Your task to perform on an android device: Show me the alarms in the clock app Image 0: 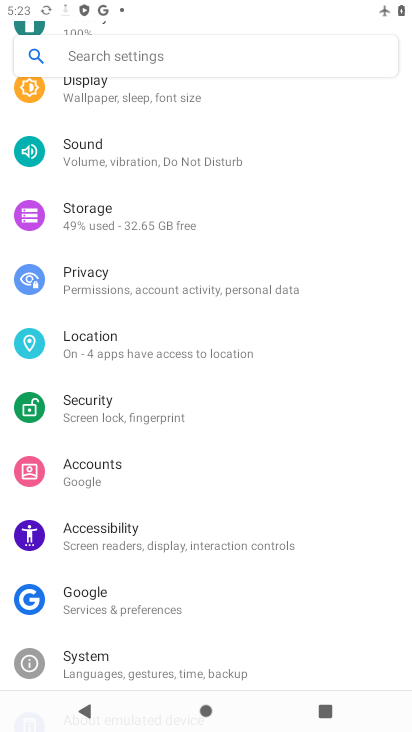
Step 0: press home button
Your task to perform on an android device: Show me the alarms in the clock app Image 1: 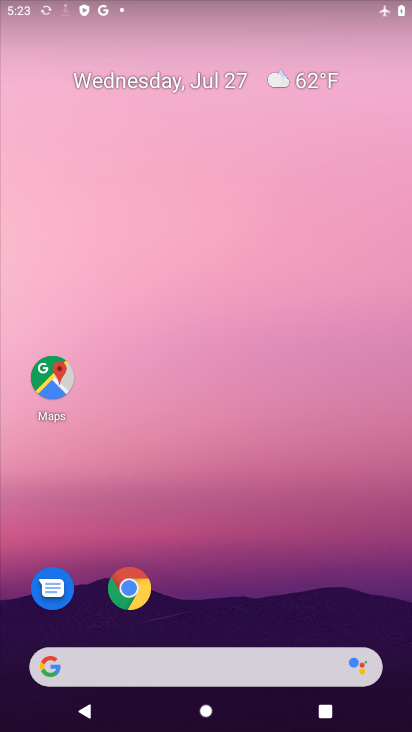
Step 1: drag from (200, 479) to (186, 98)
Your task to perform on an android device: Show me the alarms in the clock app Image 2: 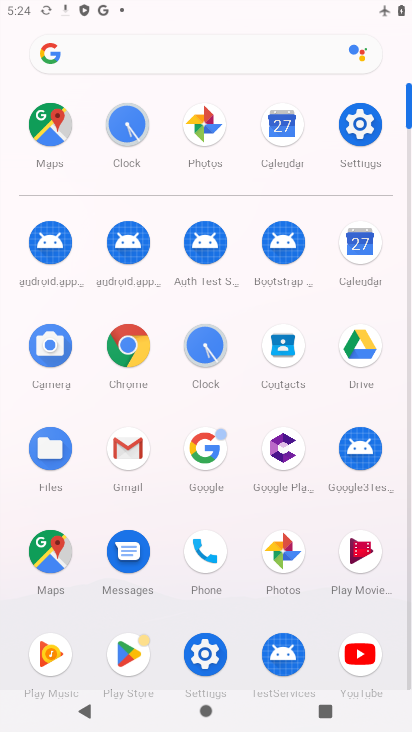
Step 2: click (209, 364)
Your task to perform on an android device: Show me the alarms in the clock app Image 3: 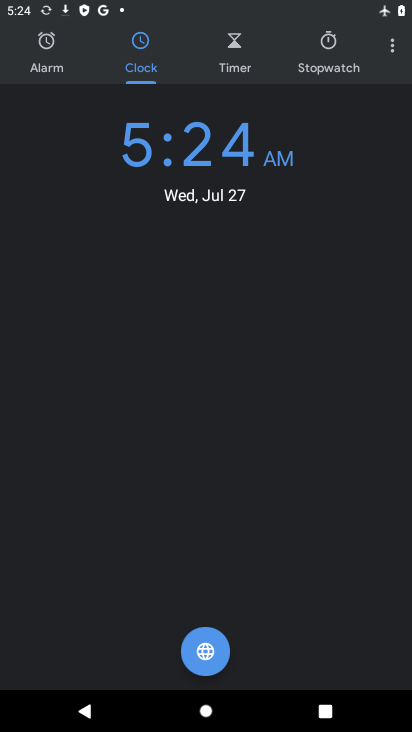
Step 3: click (392, 46)
Your task to perform on an android device: Show me the alarms in the clock app Image 4: 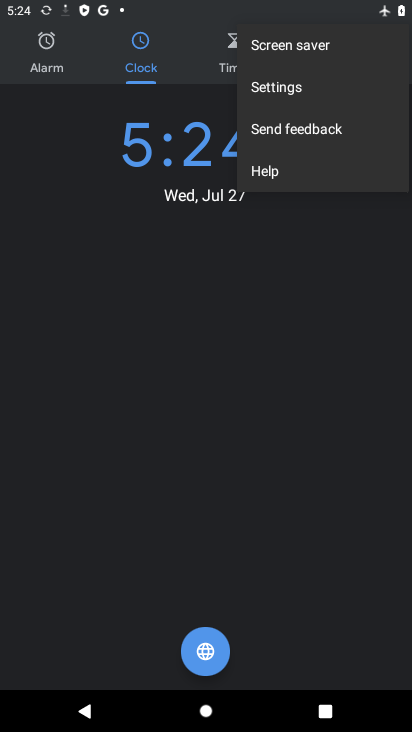
Step 4: click (261, 90)
Your task to perform on an android device: Show me the alarms in the clock app Image 5: 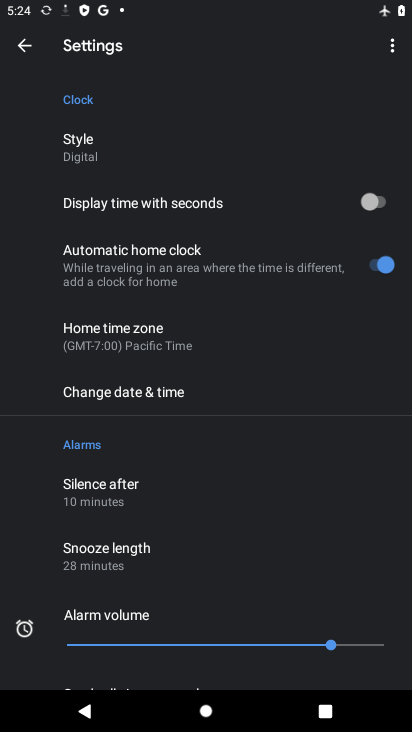
Step 5: click (27, 46)
Your task to perform on an android device: Show me the alarms in the clock app Image 6: 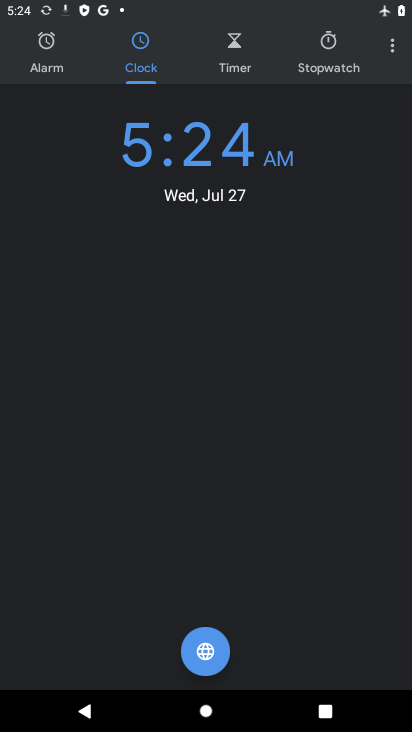
Step 6: click (40, 54)
Your task to perform on an android device: Show me the alarms in the clock app Image 7: 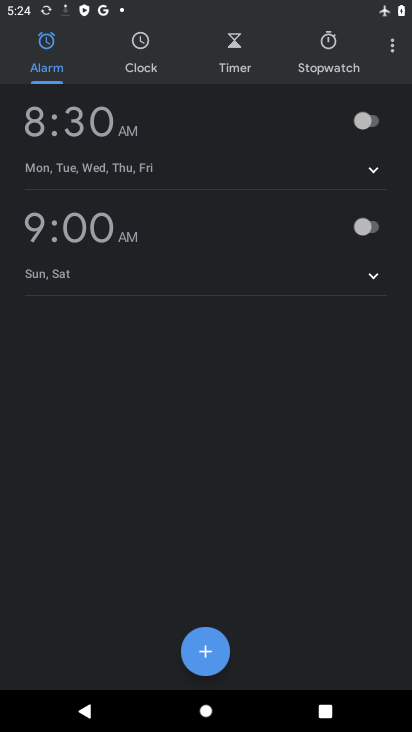
Step 7: task complete